Your task to perform on an android device: turn on showing notifications on the lock screen Image 0: 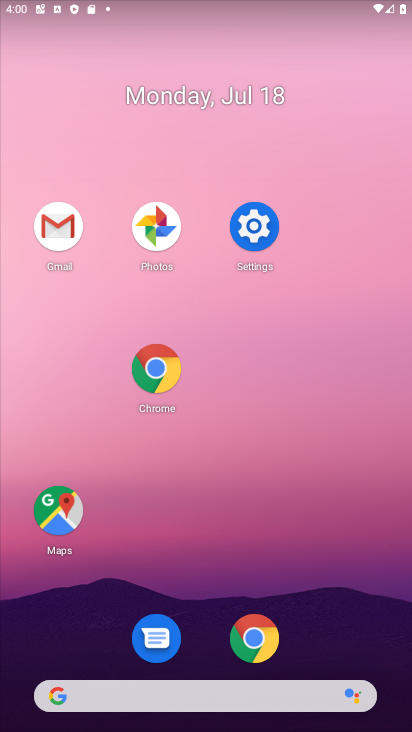
Step 0: click (255, 223)
Your task to perform on an android device: turn on showing notifications on the lock screen Image 1: 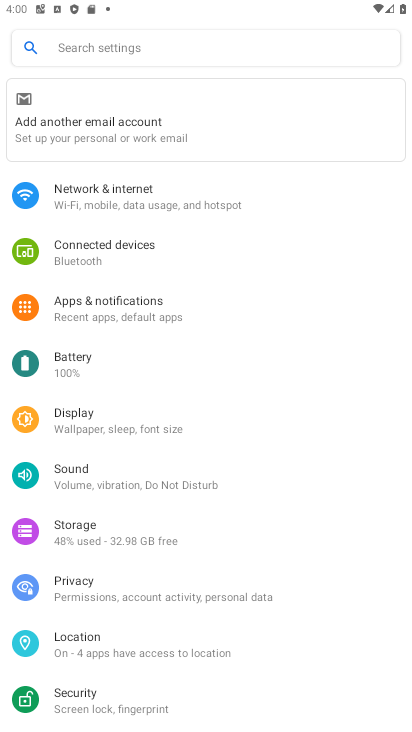
Step 1: click (114, 320)
Your task to perform on an android device: turn on showing notifications on the lock screen Image 2: 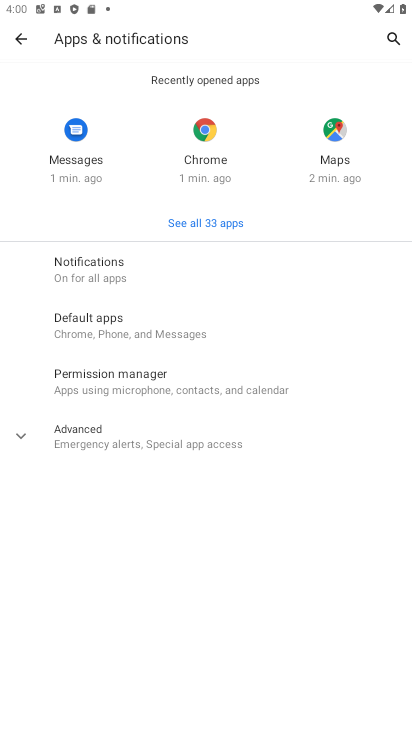
Step 2: click (161, 444)
Your task to perform on an android device: turn on showing notifications on the lock screen Image 3: 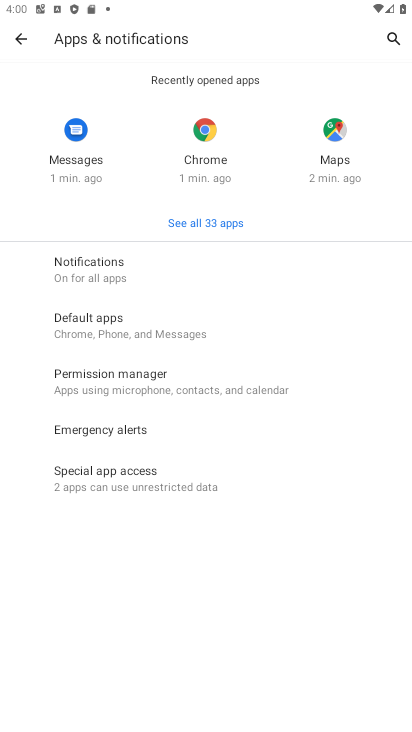
Step 3: click (156, 278)
Your task to perform on an android device: turn on showing notifications on the lock screen Image 4: 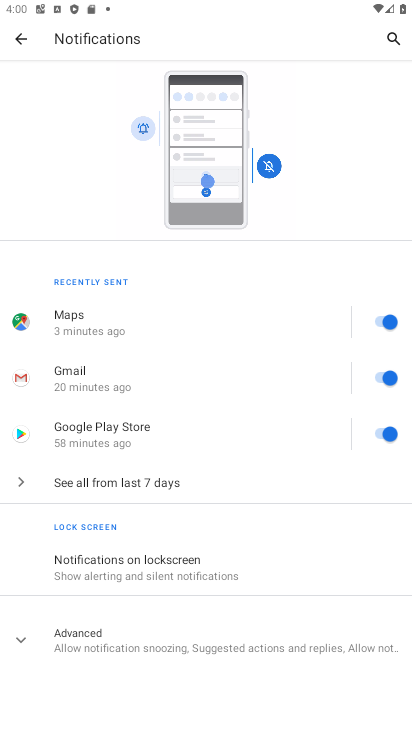
Step 4: click (196, 579)
Your task to perform on an android device: turn on showing notifications on the lock screen Image 5: 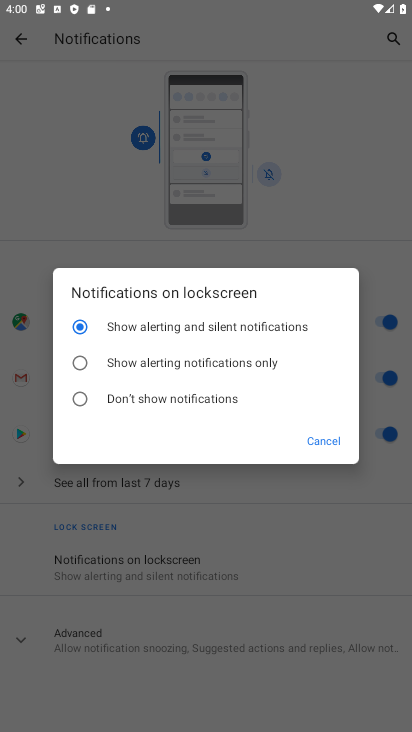
Step 5: task complete